Your task to perform on an android device: What is the recent news? Image 0: 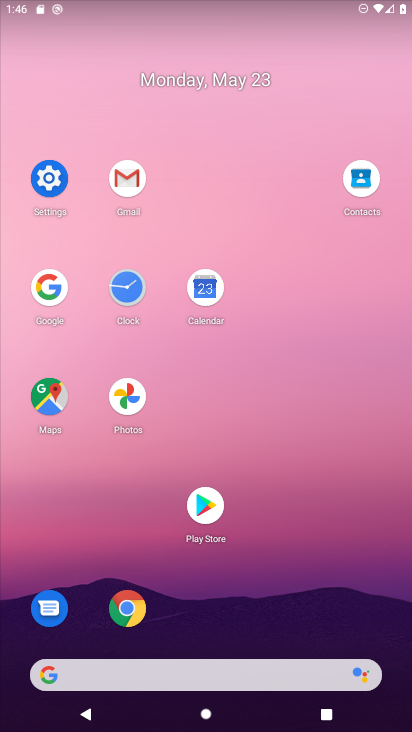
Step 0: click (53, 287)
Your task to perform on an android device: What is the recent news? Image 1: 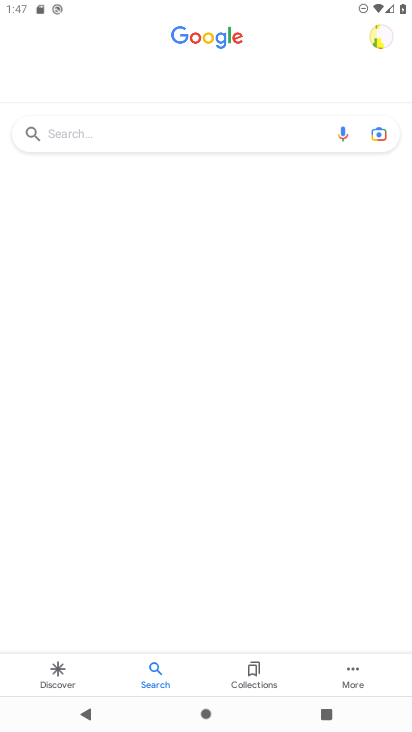
Step 1: click (149, 137)
Your task to perform on an android device: What is the recent news? Image 2: 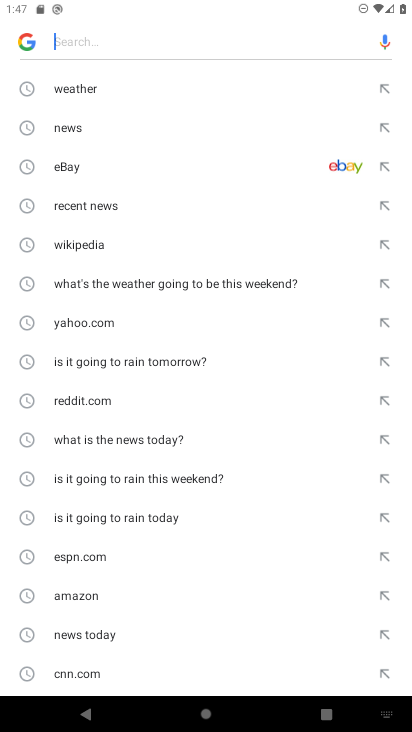
Step 2: click (118, 215)
Your task to perform on an android device: What is the recent news? Image 3: 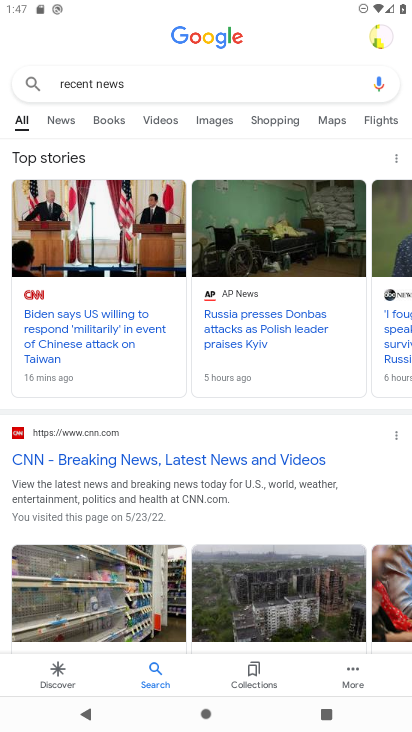
Step 3: task complete